Your task to perform on an android device: empty trash in the gmail app Image 0: 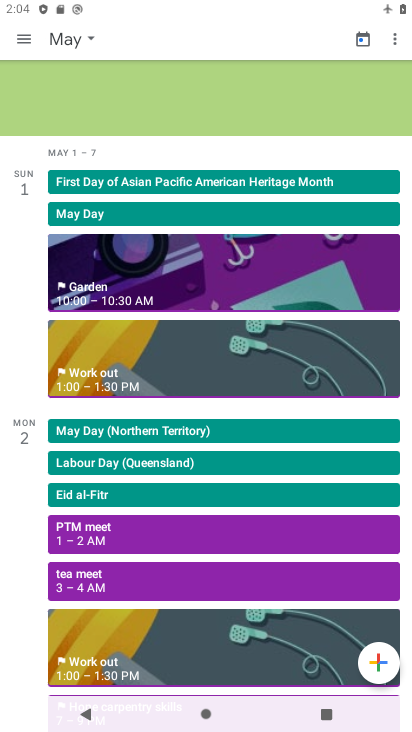
Step 0: press home button
Your task to perform on an android device: empty trash in the gmail app Image 1: 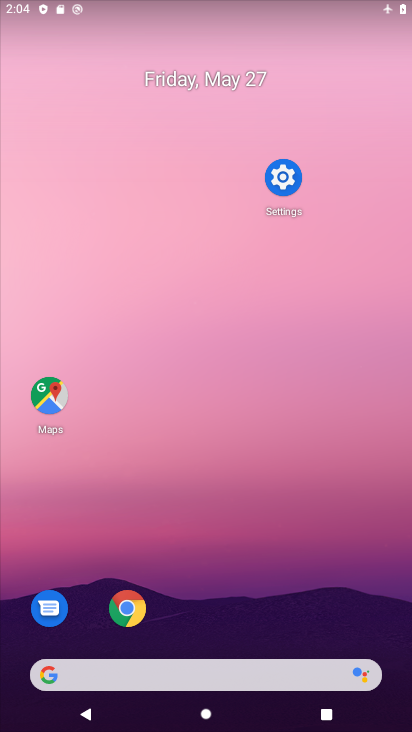
Step 1: drag from (315, 595) to (184, 145)
Your task to perform on an android device: empty trash in the gmail app Image 2: 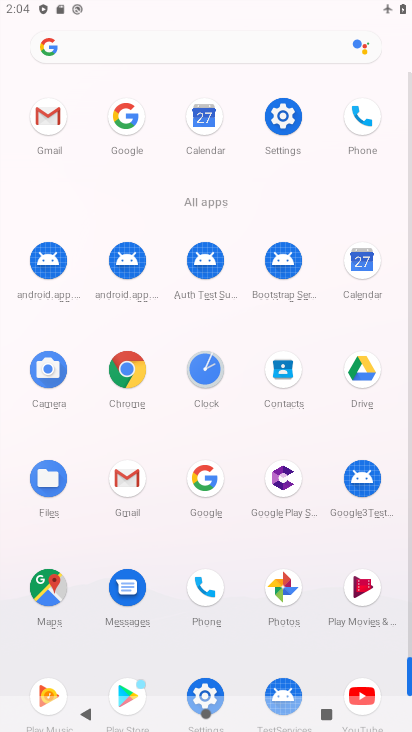
Step 2: click (43, 118)
Your task to perform on an android device: empty trash in the gmail app Image 3: 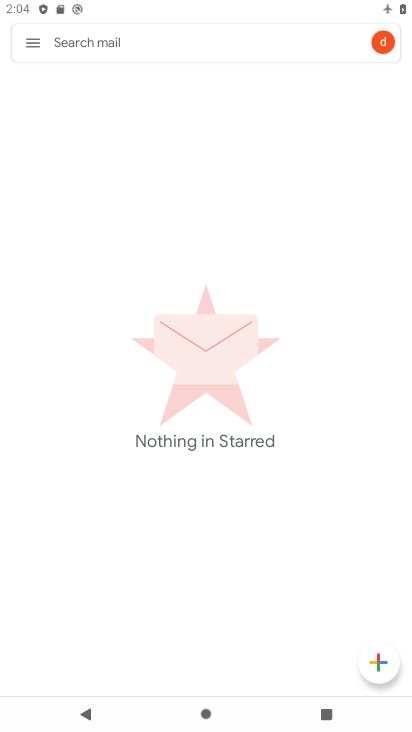
Step 3: click (25, 42)
Your task to perform on an android device: empty trash in the gmail app Image 4: 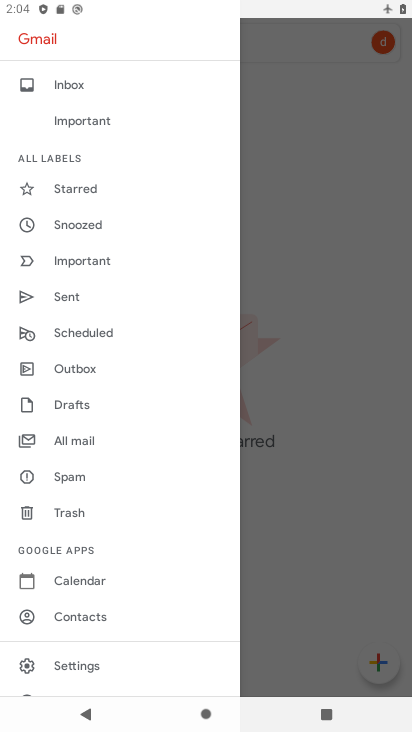
Step 4: click (79, 515)
Your task to perform on an android device: empty trash in the gmail app Image 5: 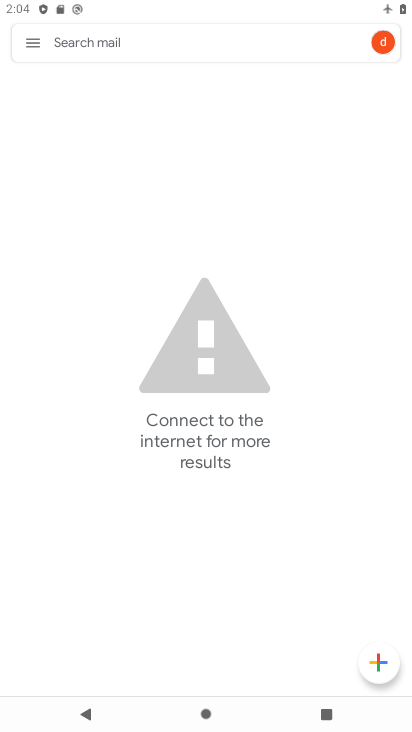
Step 5: drag from (225, 0) to (276, 302)
Your task to perform on an android device: empty trash in the gmail app Image 6: 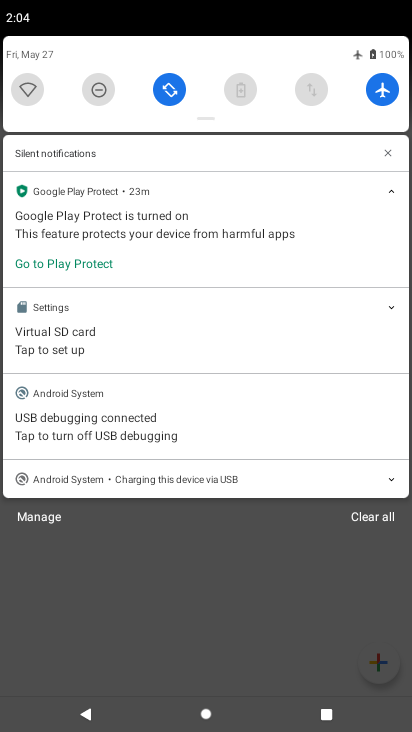
Step 6: click (22, 89)
Your task to perform on an android device: empty trash in the gmail app Image 7: 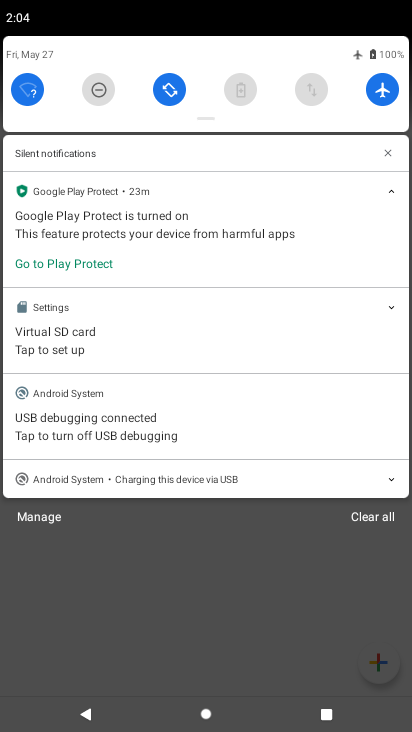
Step 7: click (379, 85)
Your task to perform on an android device: empty trash in the gmail app Image 8: 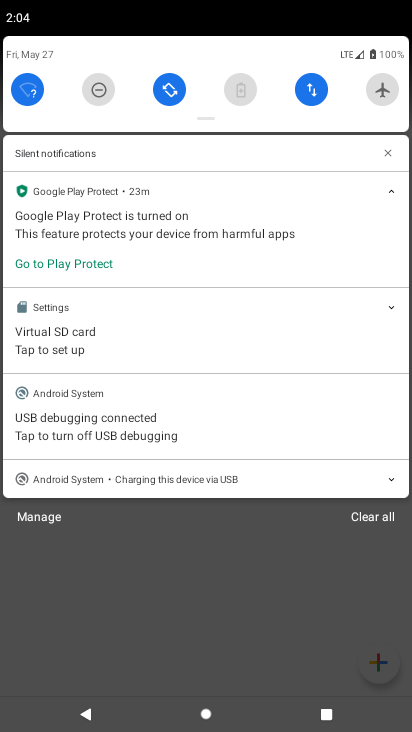
Step 8: click (266, 599)
Your task to perform on an android device: empty trash in the gmail app Image 9: 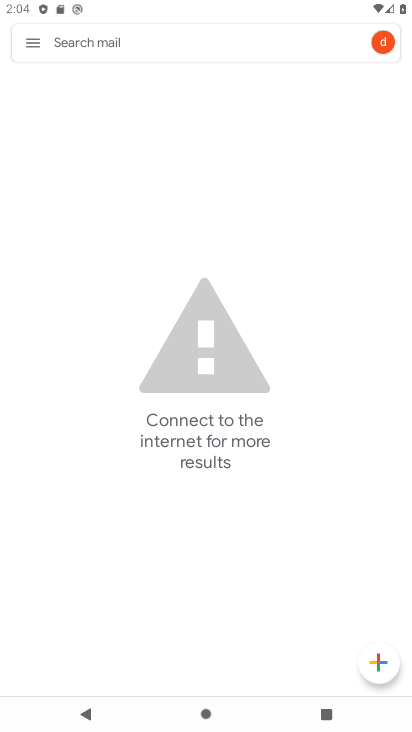
Step 9: task complete